Your task to perform on an android device: change text size in settings app Image 0: 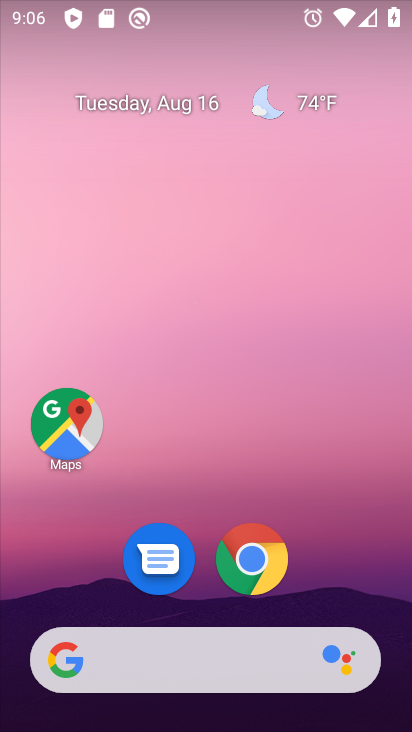
Step 0: drag from (207, 674) to (216, 145)
Your task to perform on an android device: change text size in settings app Image 1: 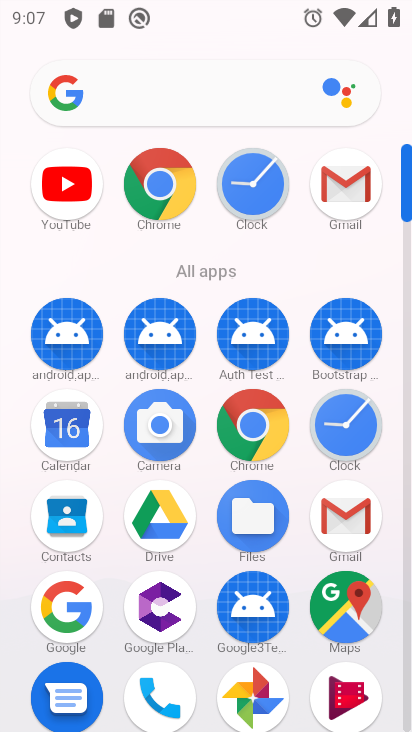
Step 1: drag from (285, 287) to (303, 119)
Your task to perform on an android device: change text size in settings app Image 2: 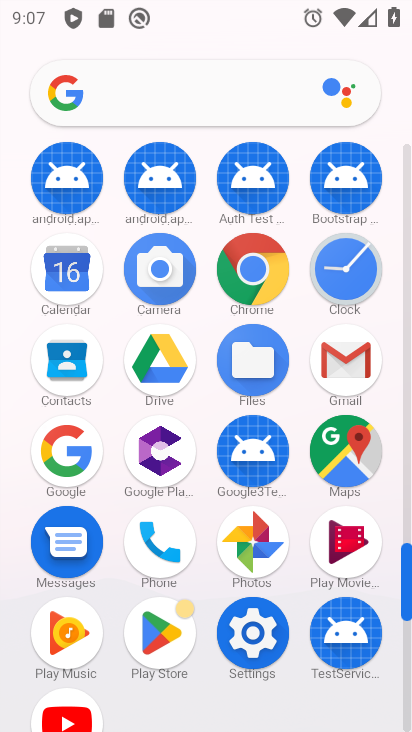
Step 2: click (252, 634)
Your task to perform on an android device: change text size in settings app Image 3: 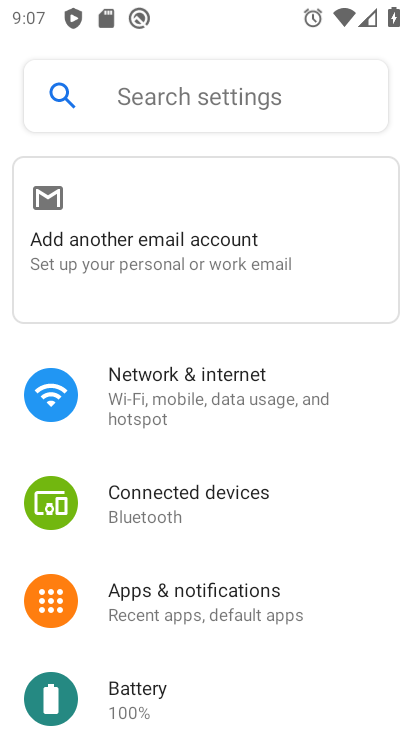
Step 3: drag from (171, 543) to (236, 450)
Your task to perform on an android device: change text size in settings app Image 4: 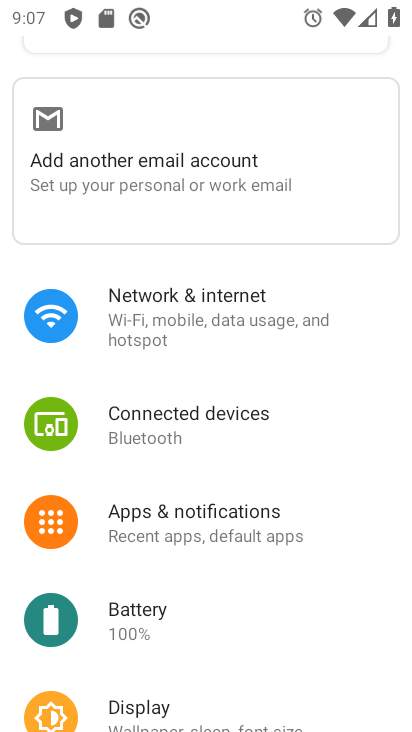
Step 4: drag from (190, 561) to (269, 458)
Your task to perform on an android device: change text size in settings app Image 5: 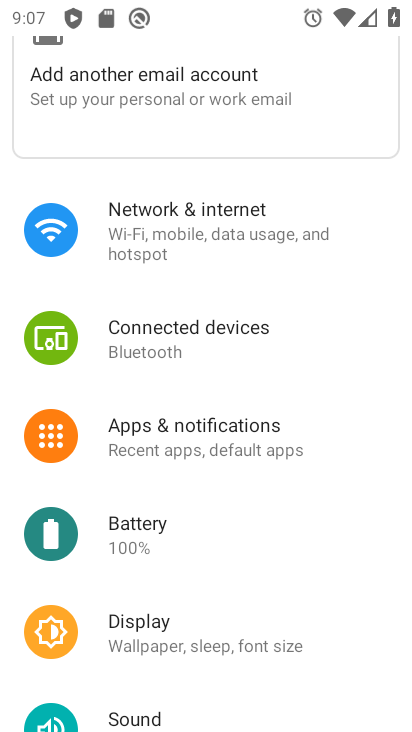
Step 5: drag from (163, 599) to (229, 471)
Your task to perform on an android device: change text size in settings app Image 6: 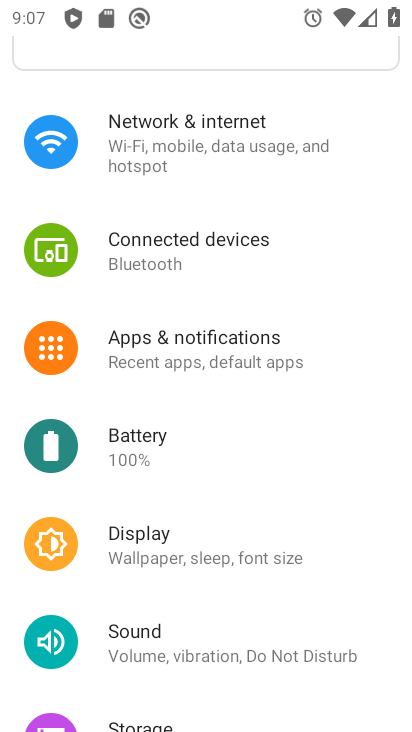
Step 6: drag from (175, 595) to (231, 496)
Your task to perform on an android device: change text size in settings app Image 7: 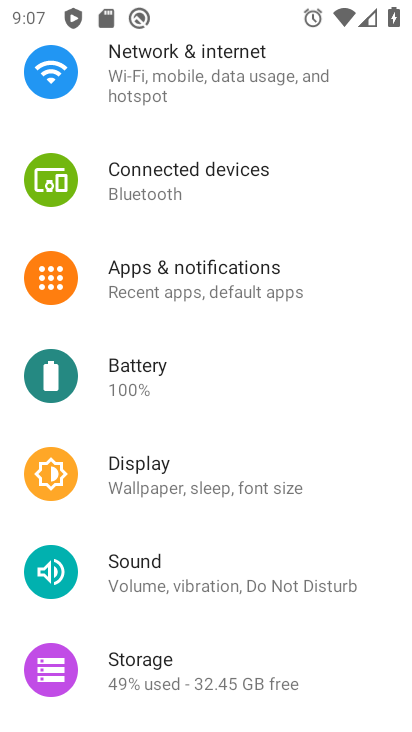
Step 7: drag from (221, 631) to (272, 524)
Your task to perform on an android device: change text size in settings app Image 8: 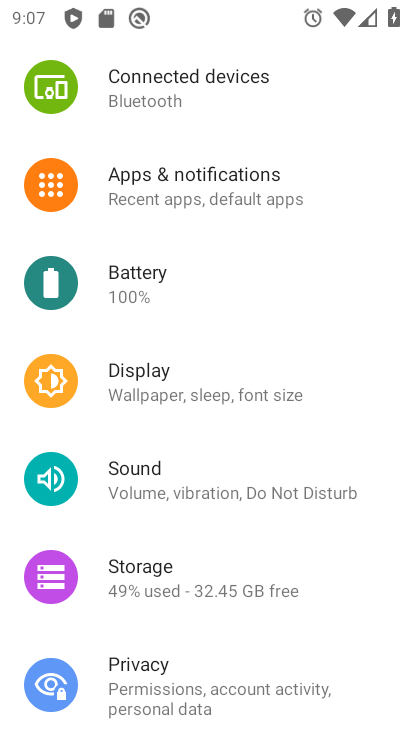
Step 8: drag from (204, 632) to (249, 535)
Your task to perform on an android device: change text size in settings app Image 9: 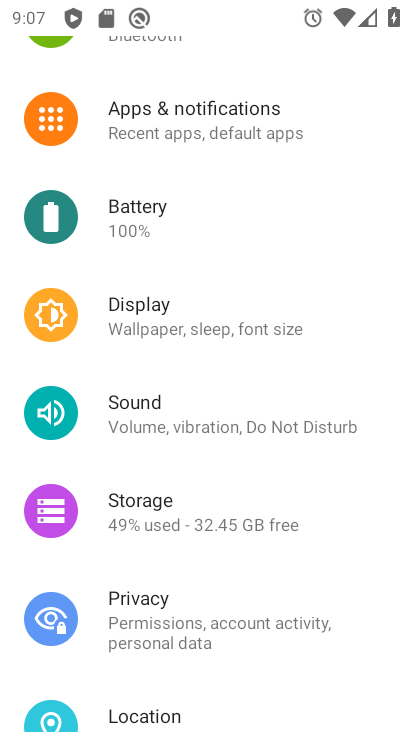
Step 9: drag from (162, 669) to (241, 541)
Your task to perform on an android device: change text size in settings app Image 10: 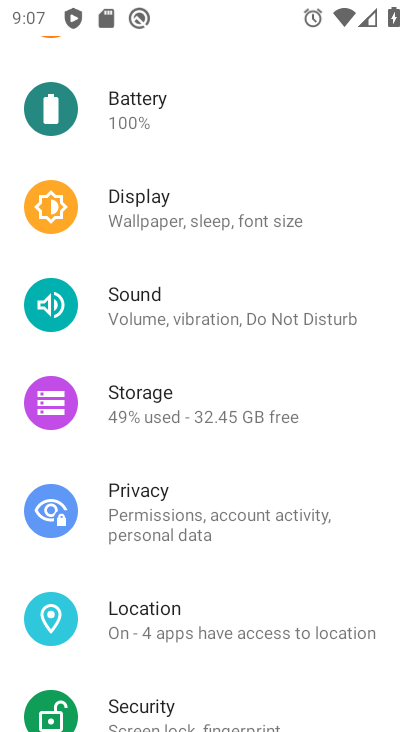
Step 10: drag from (183, 659) to (250, 559)
Your task to perform on an android device: change text size in settings app Image 11: 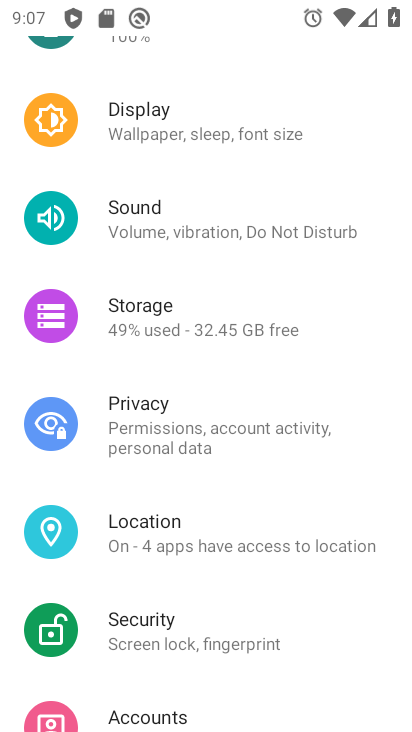
Step 11: drag from (166, 649) to (283, 489)
Your task to perform on an android device: change text size in settings app Image 12: 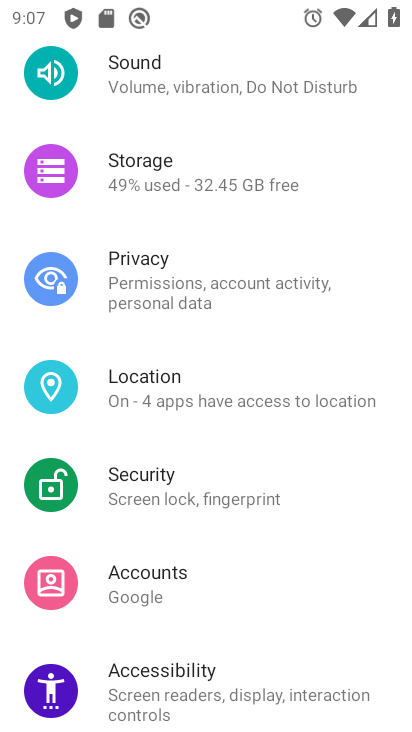
Step 12: drag from (169, 644) to (271, 497)
Your task to perform on an android device: change text size in settings app Image 13: 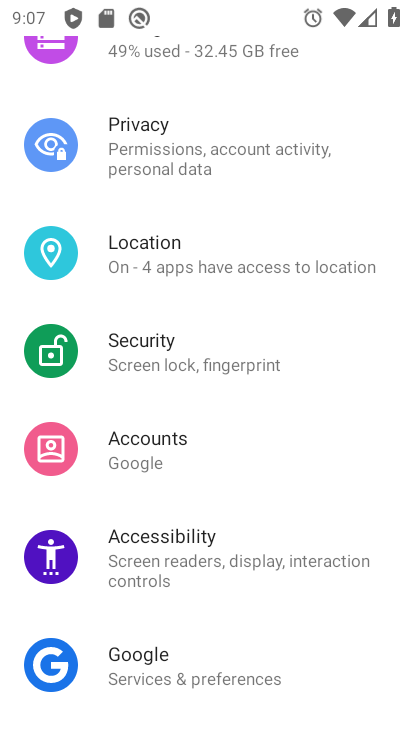
Step 13: click (196, 542)
Your task to perform on an android device: change text size in settings app Image 14: 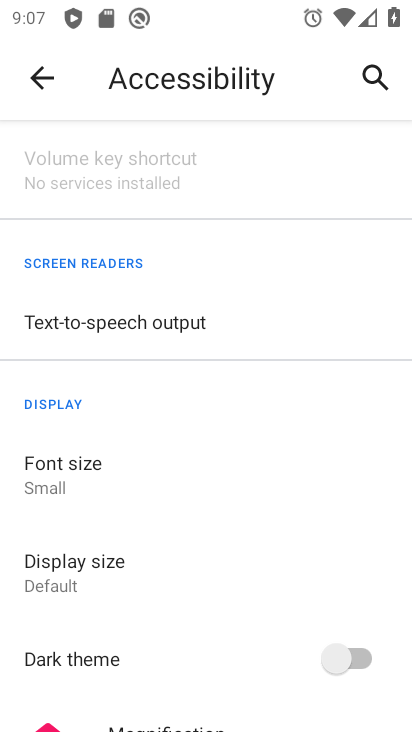
Step 14: click (113, 480)
Your task to perform on an android device: change text size in settings app Image 15: 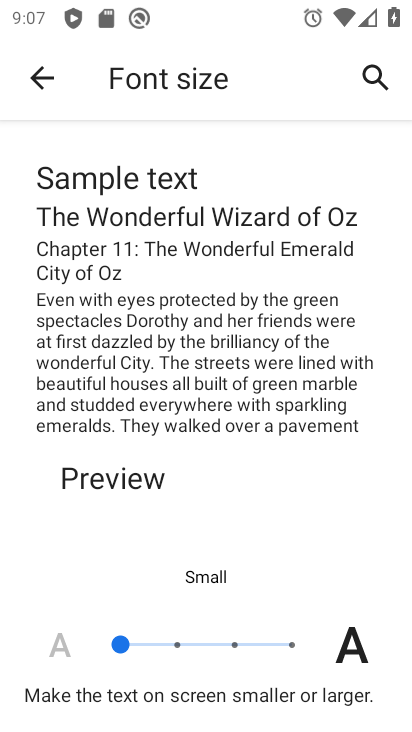
Step 15: click (185, 642)
Your task to perform on an android device: change text size in settings app Image 16: 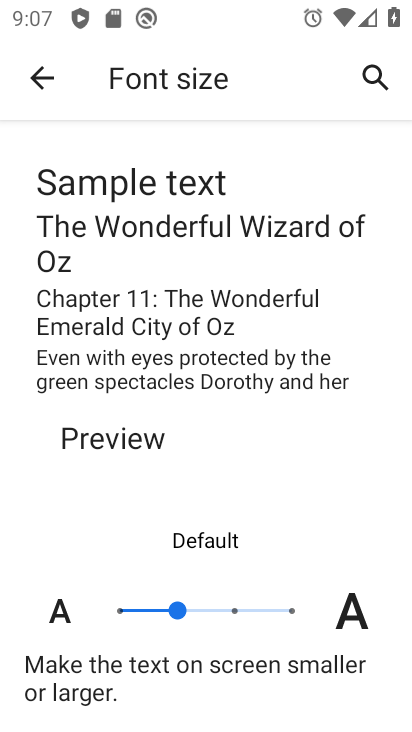
Step 16: task complete